Your task to perform on an android device: Open Google Chrome and click the shortcut for Amazon.com Image 0: 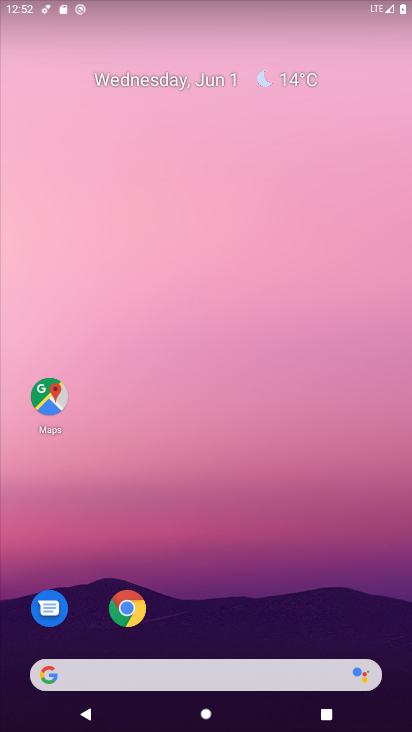
Step 0: click (144, 608)
Your task to perform on an android device: Open Google Chrome and click the shortcut for Amazon.com Image 1: 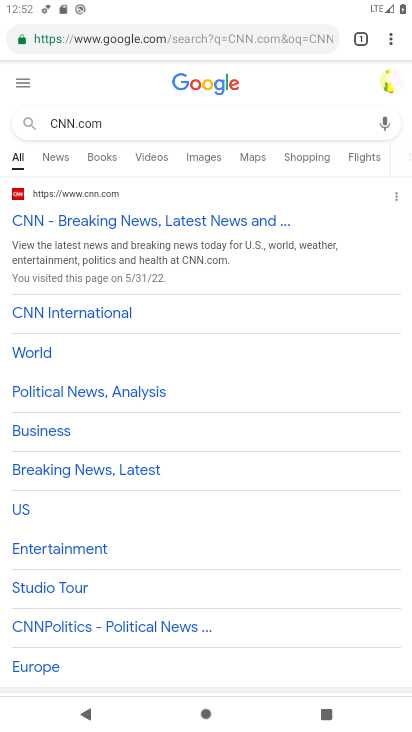
Step 1: click (392, 35)
Your task to perform on an android device: Open Google Chrome and click the shortcut for Amazon.com Image 2: 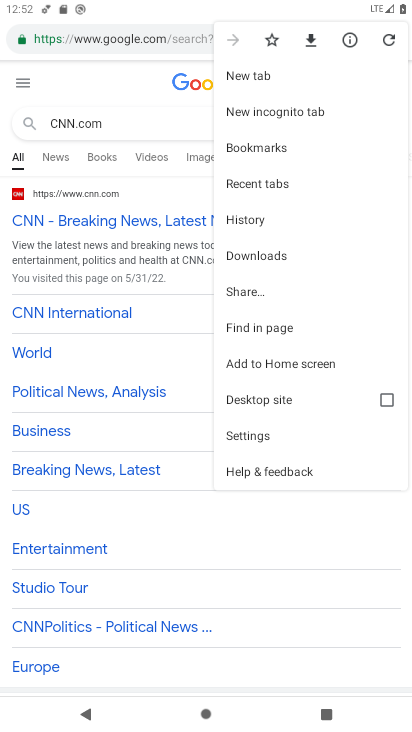
Step 2: click (251, 74)
Your task to perform on an android device: Open Google Chrome and click the shortcut for Amazon.com Image 3: 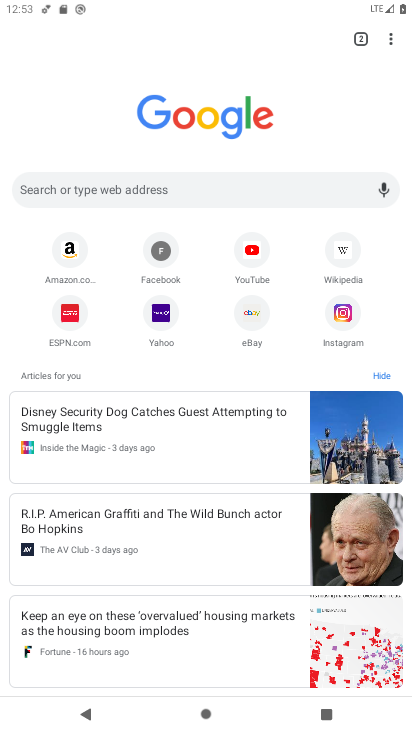
Step 3: click (75, 253)
Your task to perform on an android device: Open Google Chrome and click the shortcut for Amazon.com Image 4: 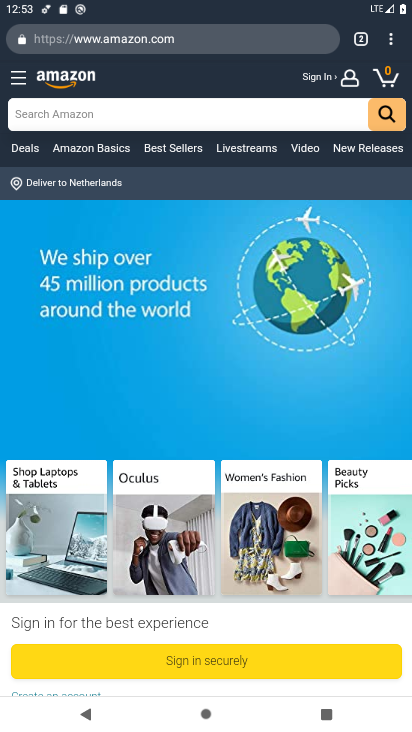
Step 4: task complete